Your task to perform on an android device: choose inbox layout in the gmail app Image 0: 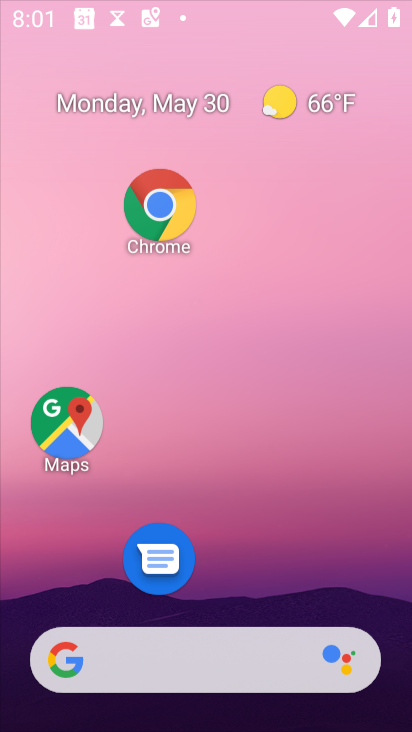
Step 0: click (346, 178)
Your task to perform on an android device: choose inbox layout in the gmail app Image 1: 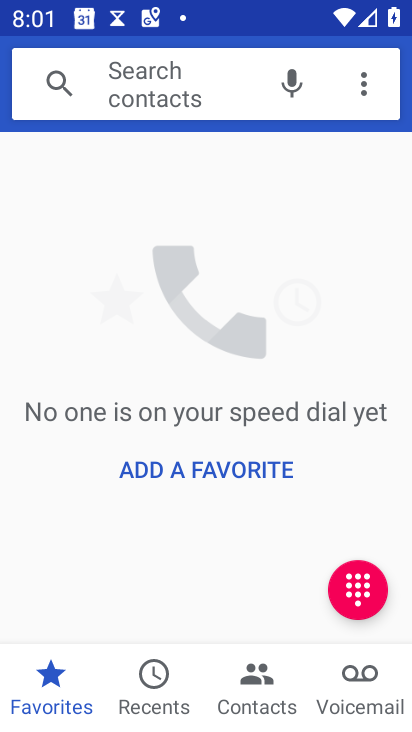
Step 1: press back button
Your task to perform on an android device: choose inbox layout in the gmail app Image 2: 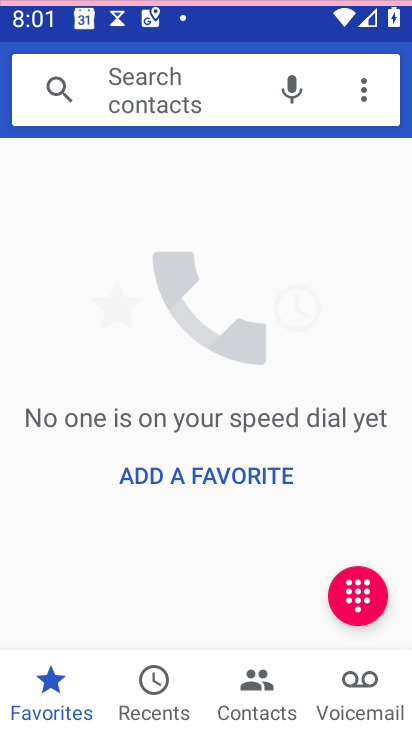
Step 2: press back button
Your task to perform on an android device: choose inbox layout in the gmail app Image 3: 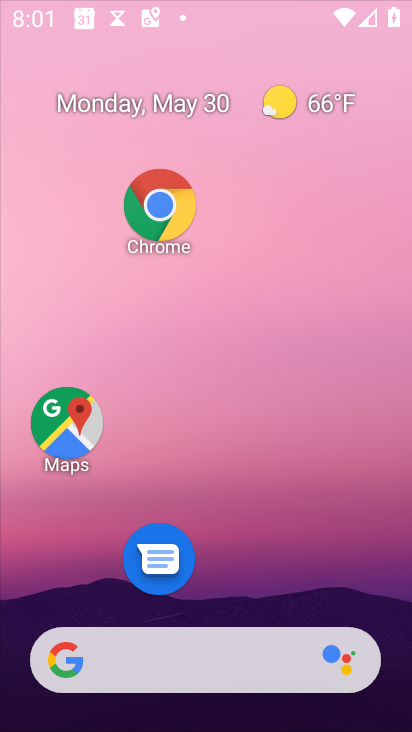
Step 3: press back button
Your task to perform on an android device: choose inbox layout in the gmail app Image 4: 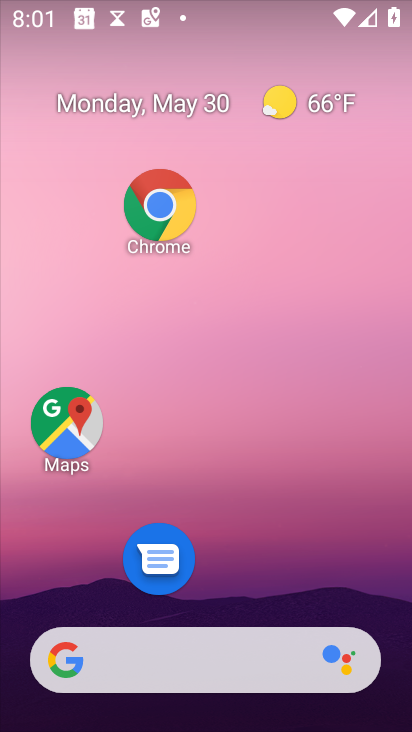
Step 4: drag from (235, 694) to (174, 171)
Your task to perform on an android device: choose inbox layout in the gmail app Image 5: 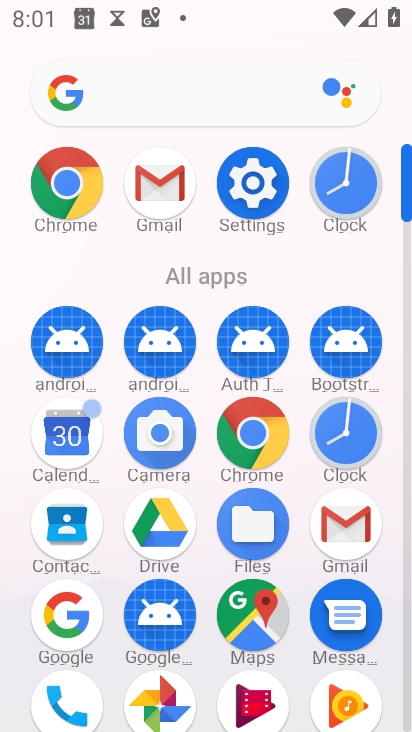
Step 5: click (363, 523)
Your task to perform on an android device: choose inbox layout in the gmail app Image 6: 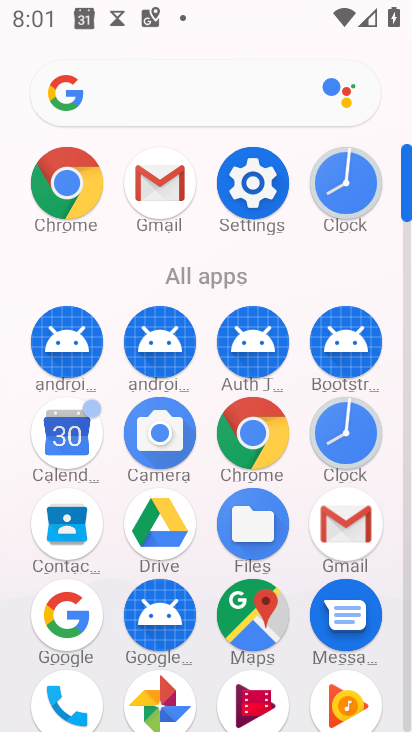
Step 6: click (363, 524)
Your task to perform on an android device: choose inbox layout in the gmail app Image 7: 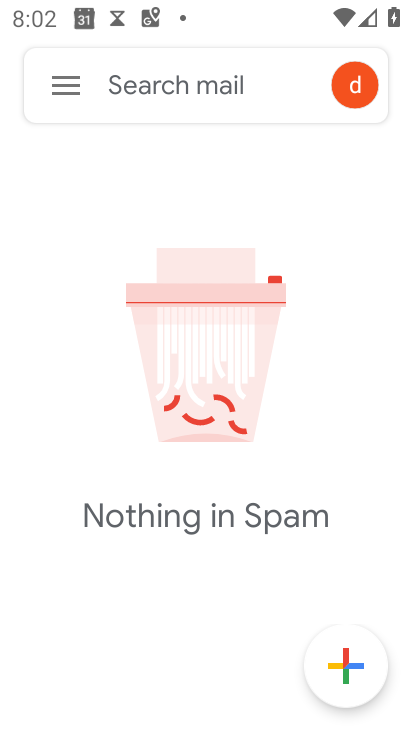
Step 7: press back button
Your task to perform on an android device: choose inbox layout in the gmail app Image 8: 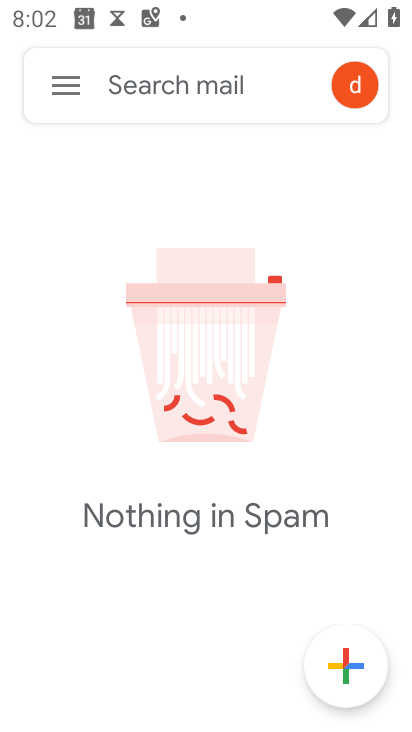
Step 8: press back button
Your task to perform on an android device: choose inbox layout in the gmail app Image 9: 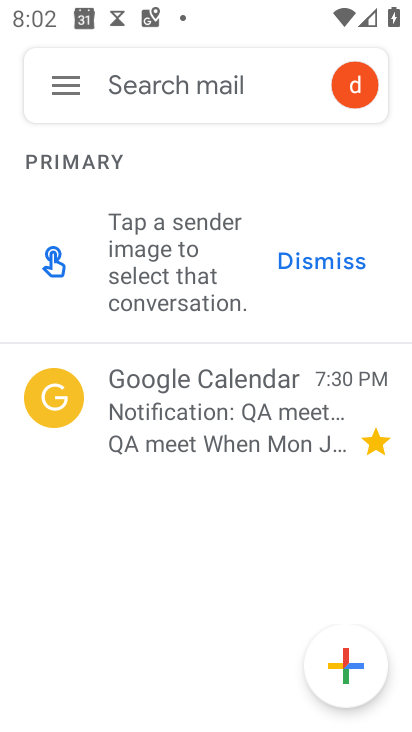
Step 9: press back button
Your task to perform on an android device: choose inbox layout in the gmail app Image 10: 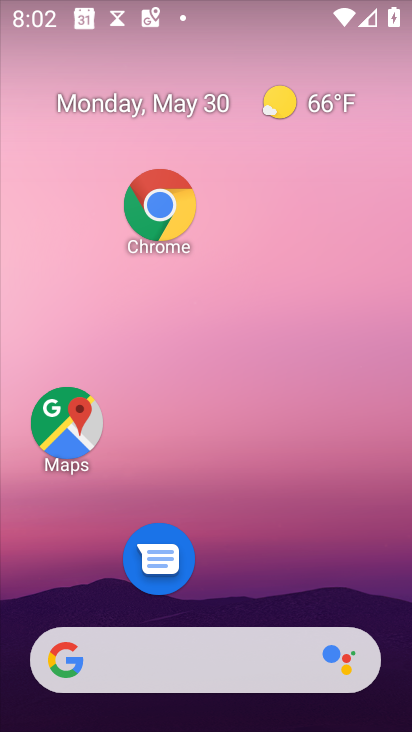
Step 10: press home button
Your task to perform on an android device: choose inbox layout in the gmail app Image 11: 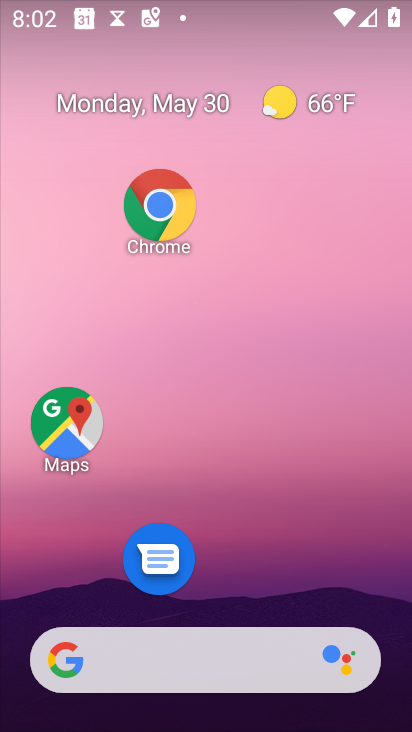
Step 11: drag from (245, 705) to (197, 101)
Your task to perform on an android device: choose inbox layout in the gmail app Image 12: 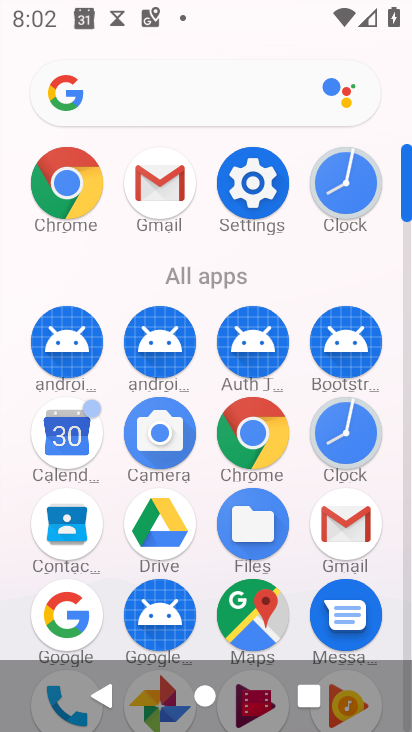
Step 12: click (340, 520)
Your task to perform on an android device: choose inbox layout in the gmail app Image 13: 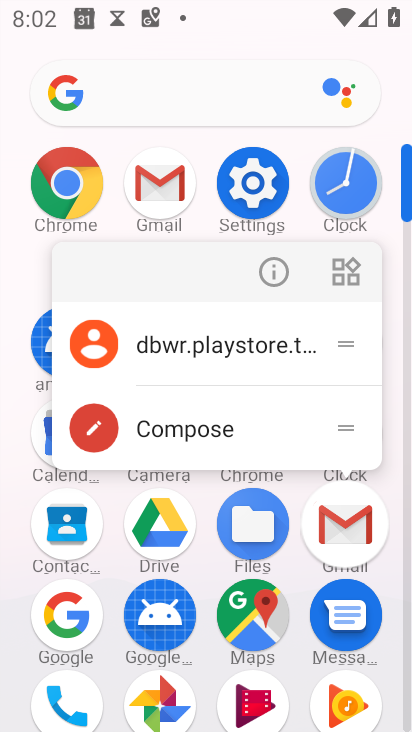
Step 13: click (340, 521)
Your task to perform on an android device: choose inbox layout in the gmail app Image 14: 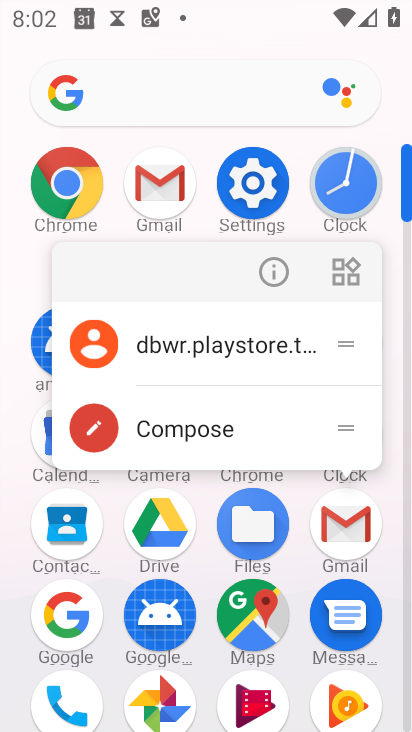
Step 14: click (340, 521)
Your task to perform on an android device: choose inbox layout in the gmail app Image 15: 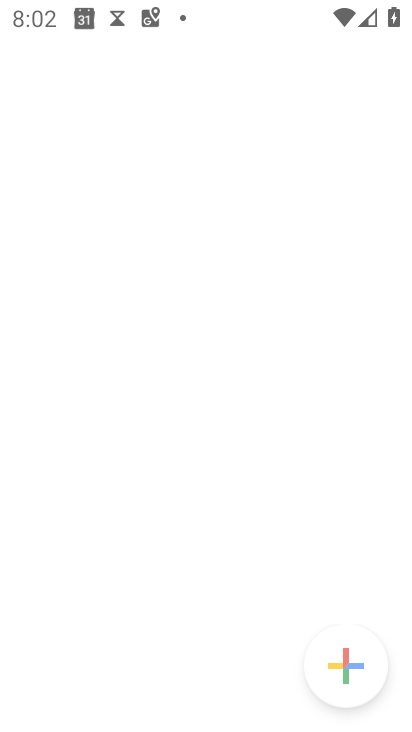
Step 15: click (340, 521)
Your task to perform on an android device: choose inbox layout in the gmail app Image 16: 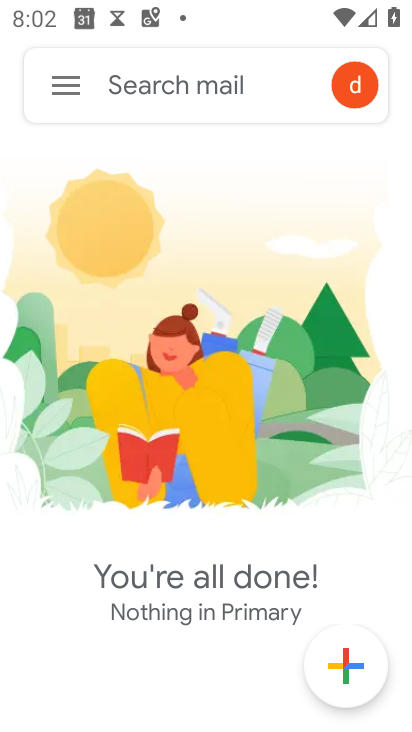
Step 16: click (62, 88)
Your task to perform on an android device: choose inbox layout in the gmail app Image 17: 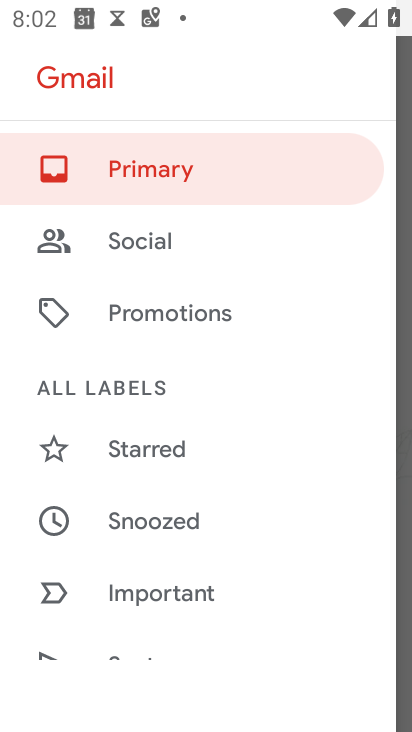
Step 17: drag from (174, 555) to (158, 258)
Your task to perform on an android device: choose inbox layout in the gmail app Image 18: 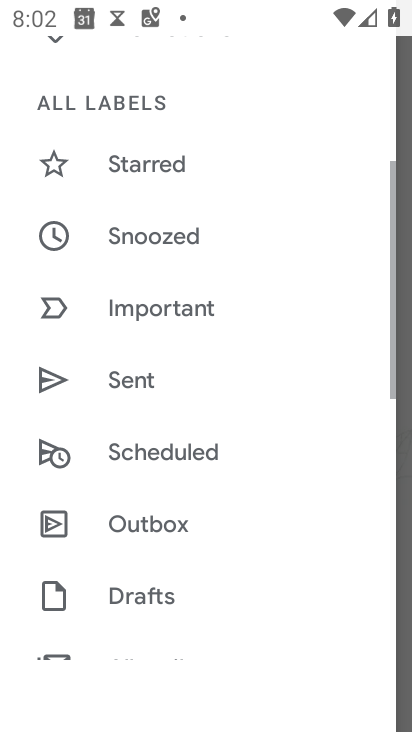
Step 18: drag from (193, 467) to (188, 125)
Your task to perform on an android device: choose inbox layout in the gmail app Image 19: 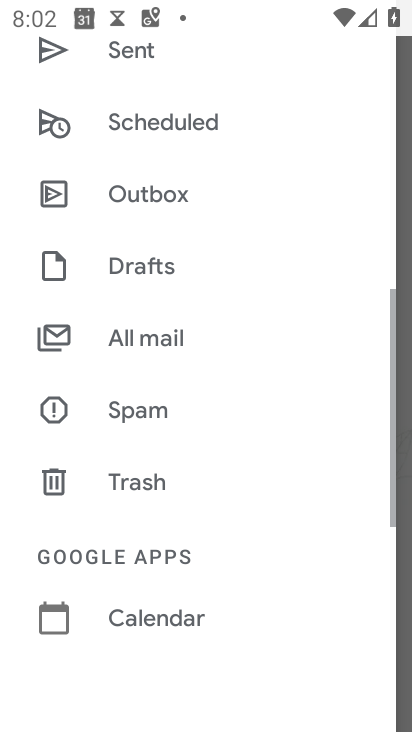
Step 19: drag from (232, 464) to (272, 26)
Your task to perform on an android device: choose inbox layout in the gmail app Image 20: 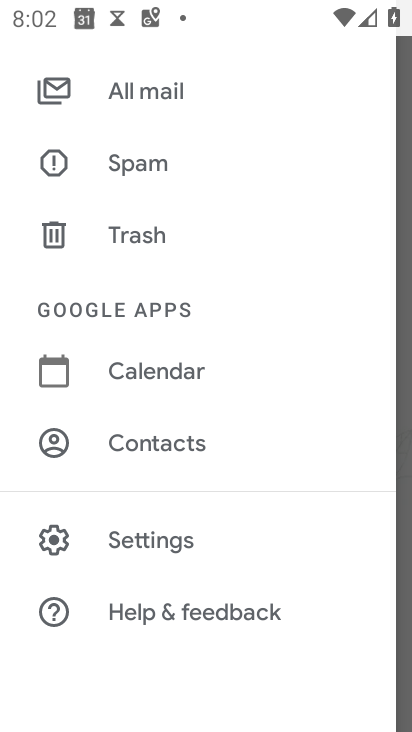
Step 20: click (150, 544)
Your task to perform on an android device: choose inbox layout in the gmail app Image 21: 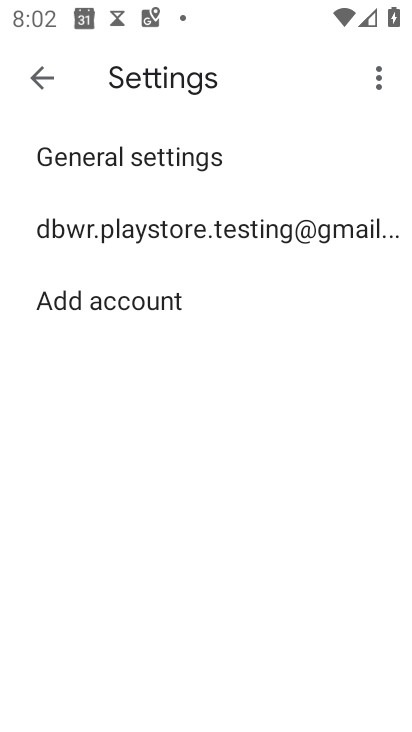
Step 21: click (118, 239)
Your task to perform on an android device: choose inbox layout in the gmail app Image 22: 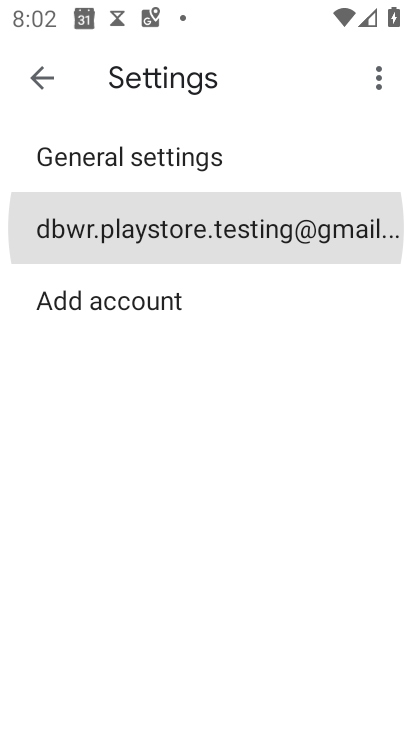
Step 22: click (119, 238)
Your task to perform on an android device: choose inbox layout in the gmail app Image 23: 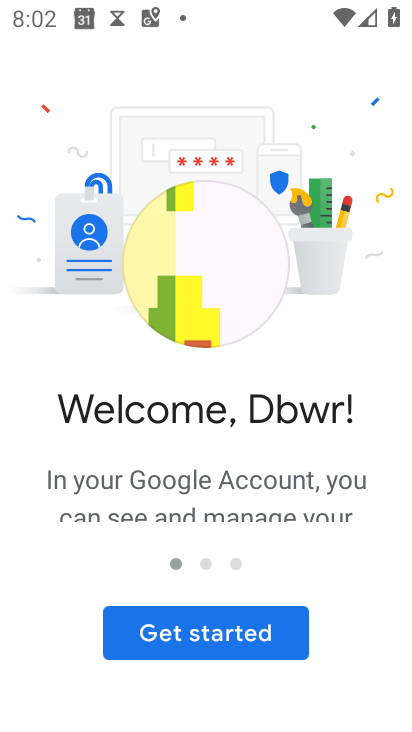
Step 23: click (209, 634)
Your task to perform on an android device: choose inbox layout in the gmail app Image 24: 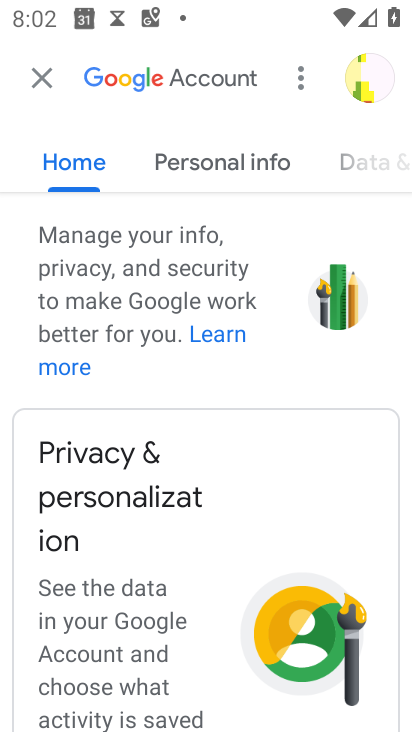
Step 24: click (42, 73)
Your task to perform on an android device: choose inbox layout in the gmail app Image 25: 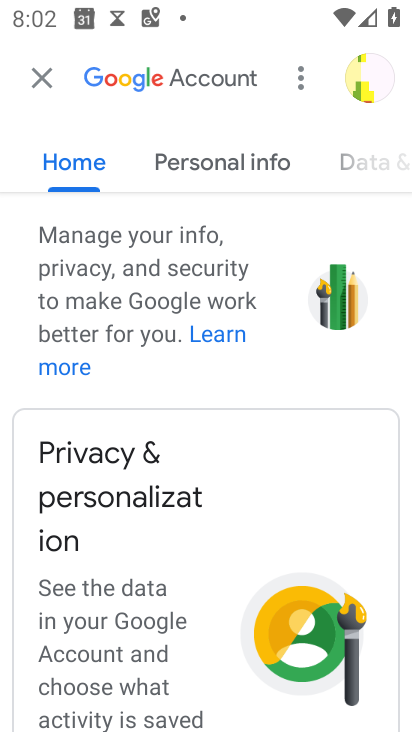
Step 25: click (42, 73)
Your task to perform on an android device: choose inbox layout in the gmail app Image 26: 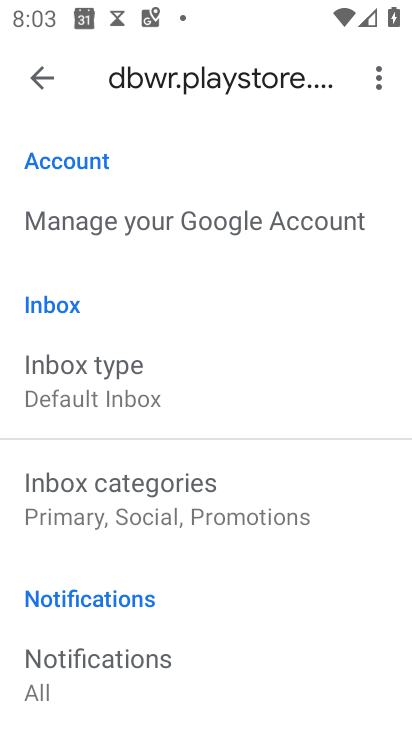
Step 26: click (38, 73)
Your task to perform on an android device: choose inbox layout in the gmail app Image 27: 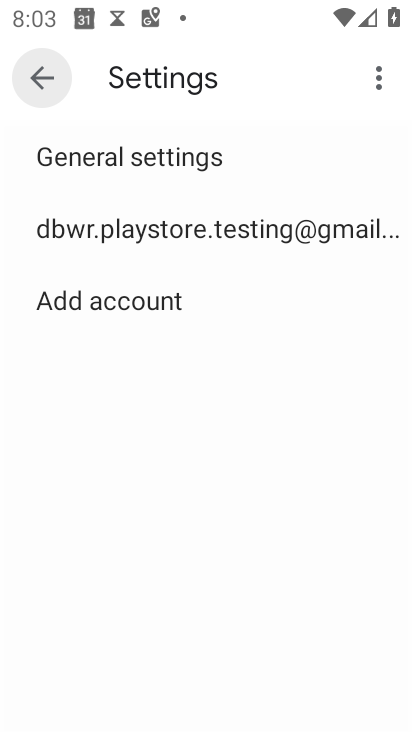
Step 27: click (38, 73)
Your task to perform on an android device: choose inbox layout in the gmail app Image 28: 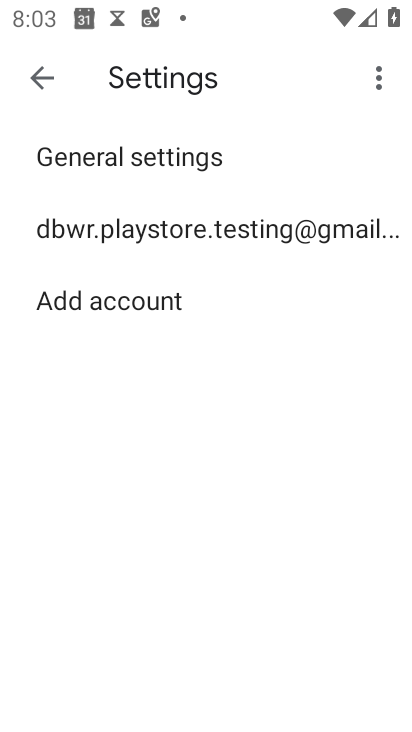
Step 28: click (38, 73)
Your task to perform on an android device: choose inbox layout in the gmail app Image 29: 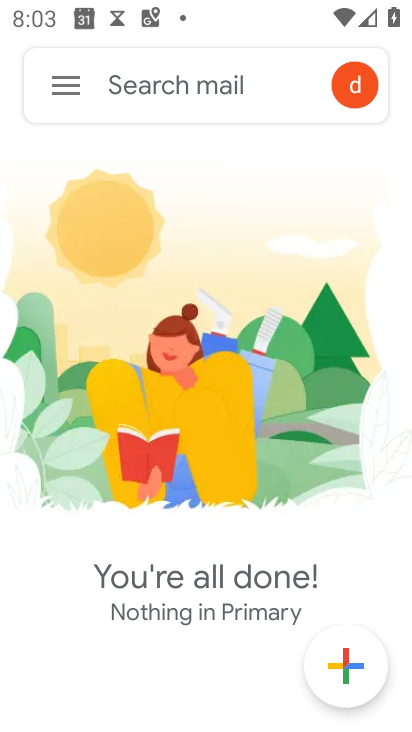
Step 29: click (66, 86)
Your task to perform on an android device: choose inbox layout in the gmail app Image 30: 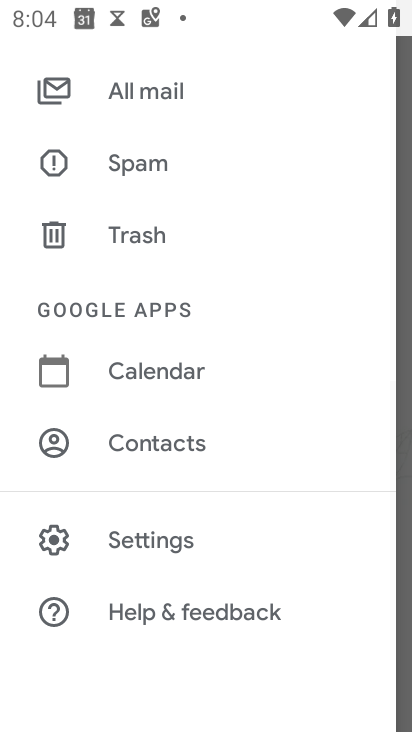
Step 30: click (151, 527)
Your task to perform on an android device: choose inbox layout in the gmail app Image 31: 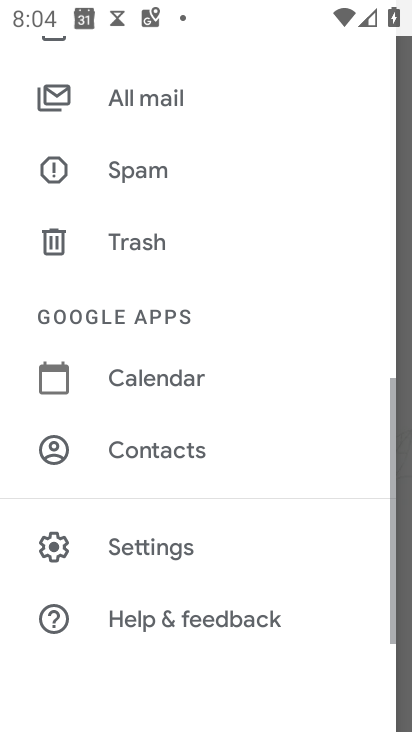
Step 31: click (157, 545)
Your task to perform on an android device: choose inbox layout in the gmail app Image 32: 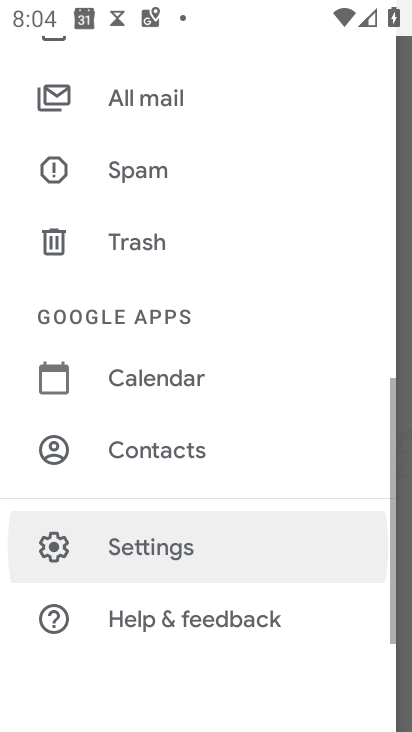
Step 32: click (157, 541)
Your task to perform on an android device: choose inbox layout in the gmail app Image 33: 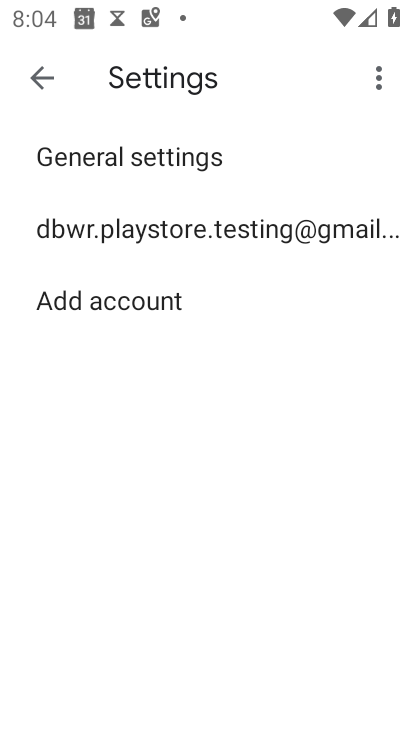
Step 33: click (152, 222)
Your task to perform on an android device: choose inbox layout in the gmail app Image 34: 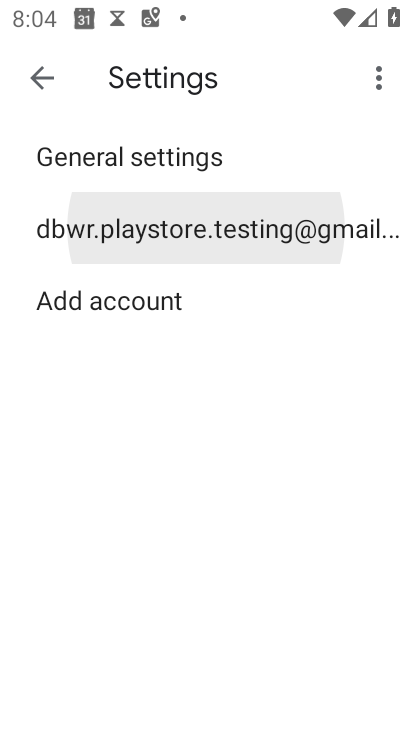
Step 34: click (155, 221)
Your task to perform on an android device: choose inbox layout in the gmail app Image 35: 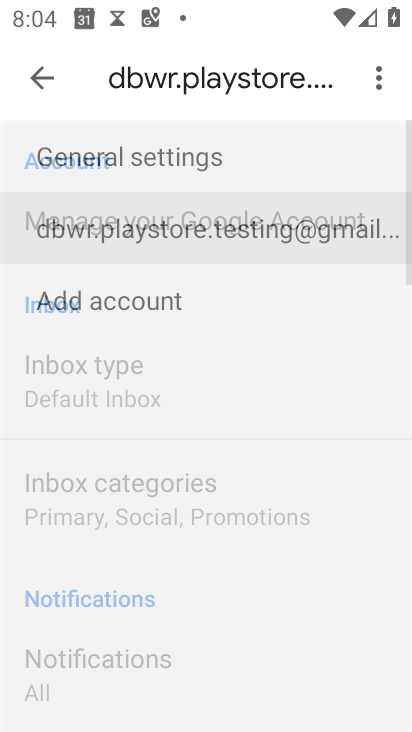
Step 35: click (155, 221)
Your task to perform on an android device: choose inbox layout in the gmail app Image 36: 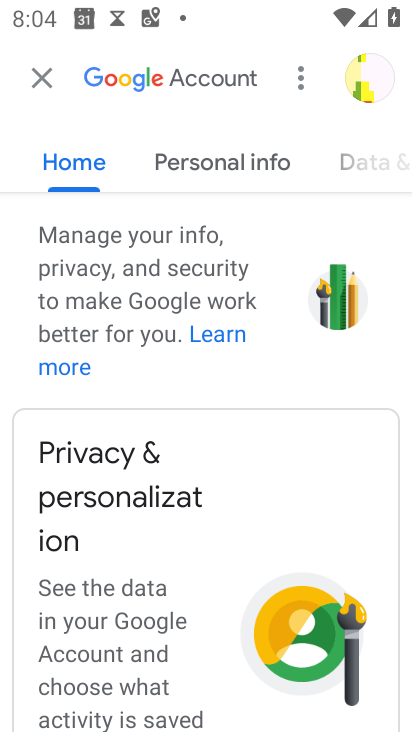
Step 36: click (32, 79)
Your task to perform on an android device: choose inbox layout in the gmail app Image 37: 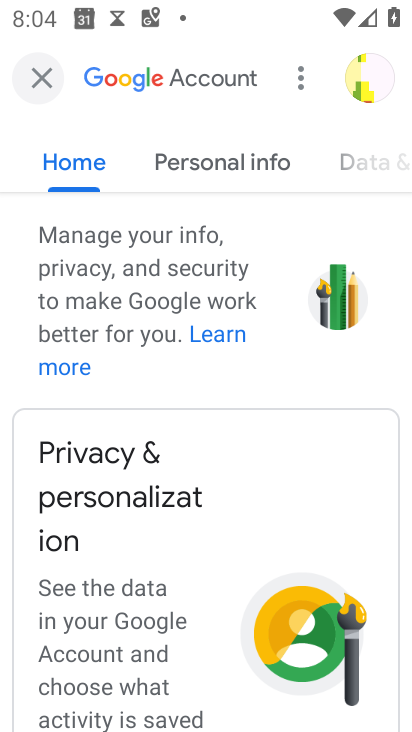
Step 37: click (41, 76)
Your task to perform on an android device: choose inbox layout in the gmail app Image 38: 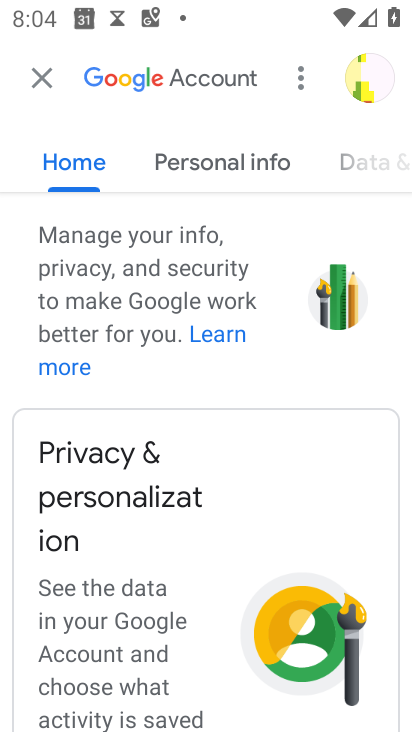
Step 38: task complete